Your task to perform on an android device: toggle javascript in the chrome app Image 0: 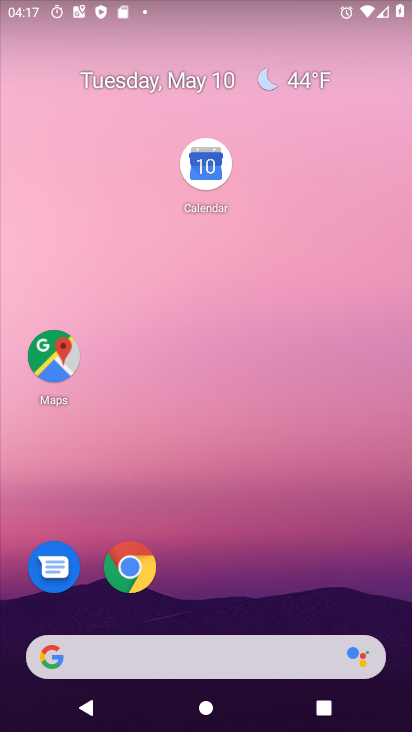
Step 0: click (130, 565)
Your task to perform on an android device: toggle javascript in the chrome app Image 1: 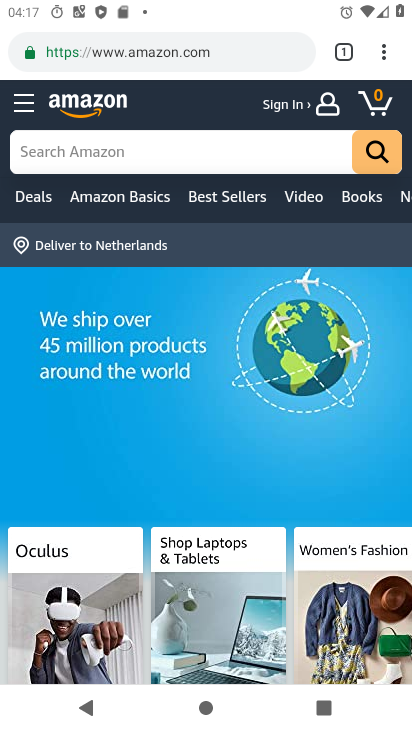
Step 1: click (374, 55)
Your task to perform on an android device: toggle javascript in the chrome app Image 2: 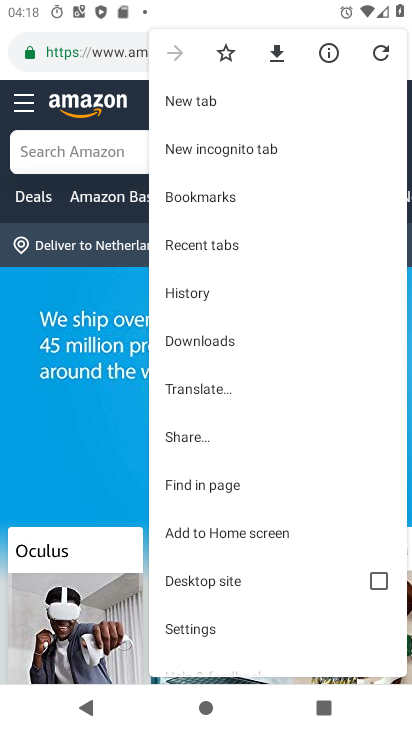
Step 2: click (218, 634)
Your task to perform on an android device: toggle javascript in the chrome app Image 3: 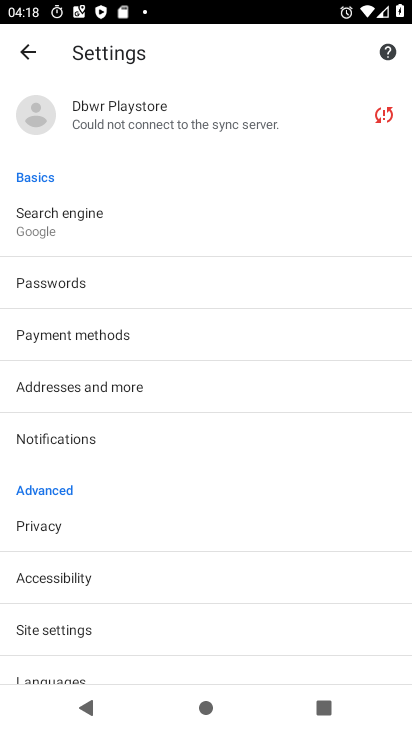
Step 3: drag from (171, 572) to (186, 276)
Your task to perform on an android device: toggle javascript in the chrome app Image 4: 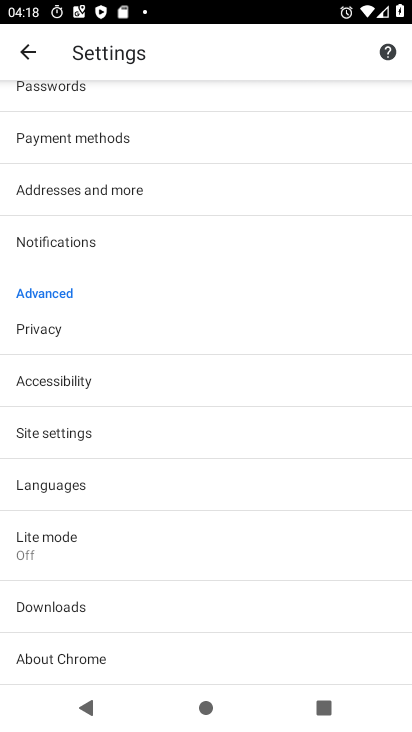
Step 4: click (46, 438)
Your task to perform on an android device: toggle javascript in the chrome app Image 5: 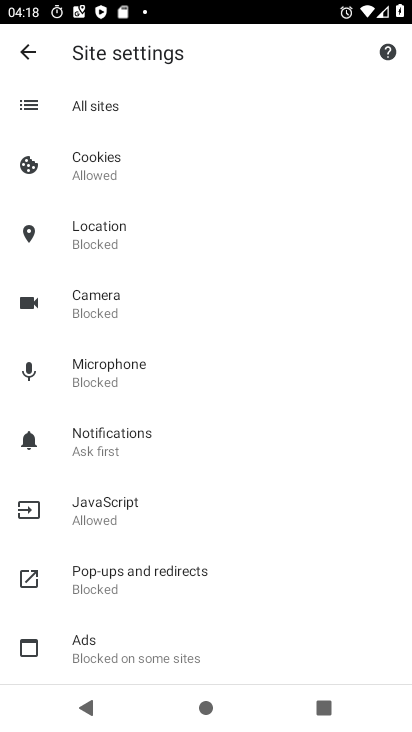
Step 5: click (109, 514)
Your task to perform on an android device: toggle javascript in the chrome app Image 6: 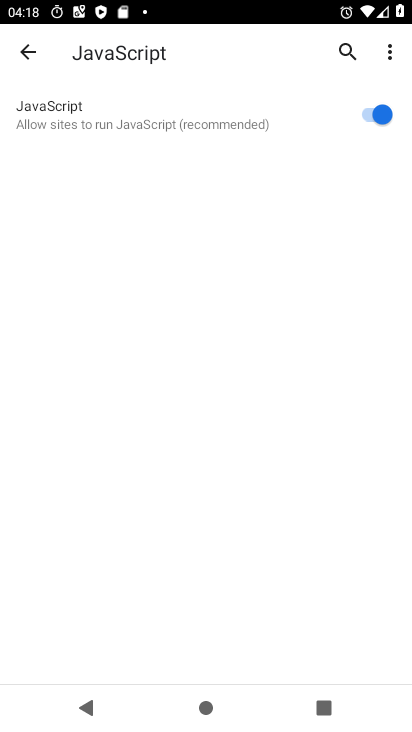
Step 6: click (372, 110)
Your task to perform on an android device: toggle javascript in the chrome app Image 7: 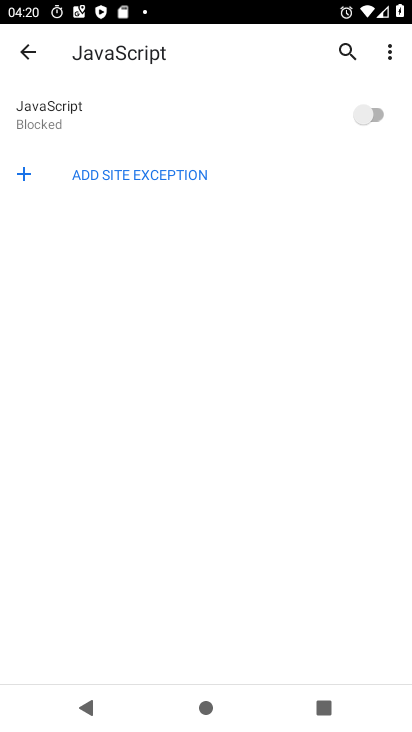
Step 7: task complete